Your task to perform on an android device: change the clock display to show seconds Image 0: 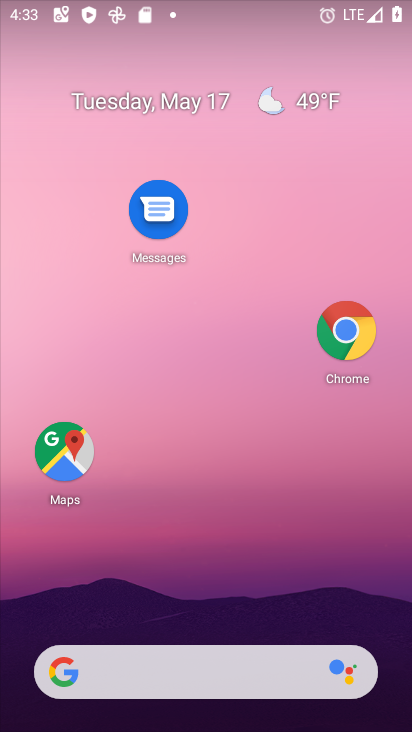
Step 0: drag from (303, 606) to (192, 185)
Your task to perform on an android device: change the clock display to show seconds Image 1: 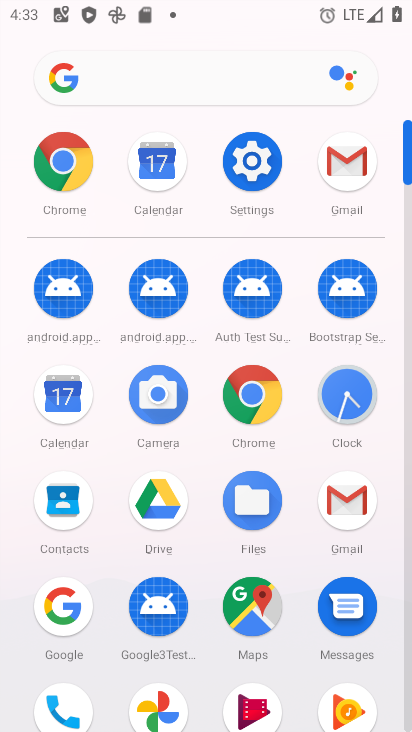
Step 1: click (351, 378)
Your task to perform on an android device: change the clock display to show seconds Image 2: 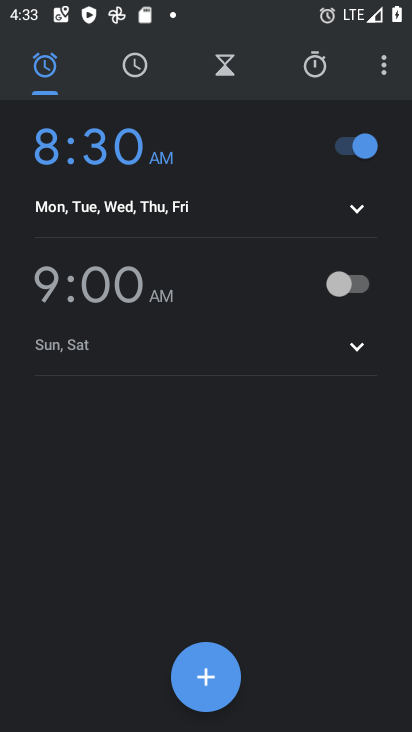
Step 2: click (364, 82)
Your task to perform on an android device: change the clock display to show seconds Image 3: 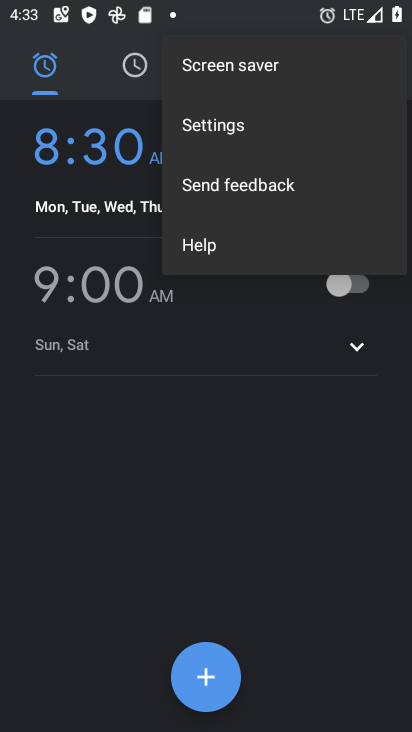
Step 3: click (290, 118)
Your task to perform on an android device: change the clock display to show seconds Image 4: 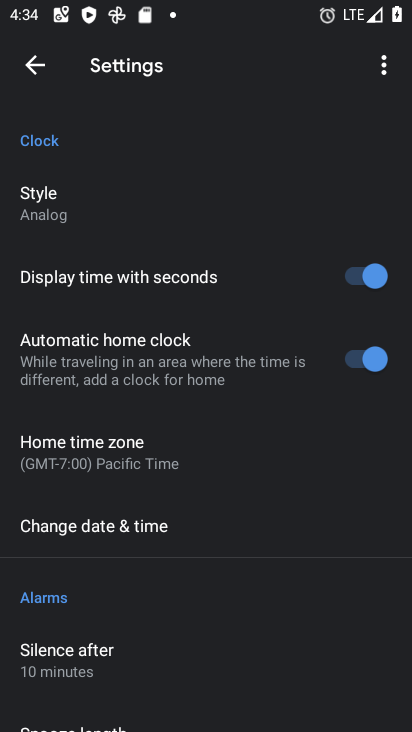
Step 4: task complete